Your task to perform on an android device: toggle wifi Image 0: 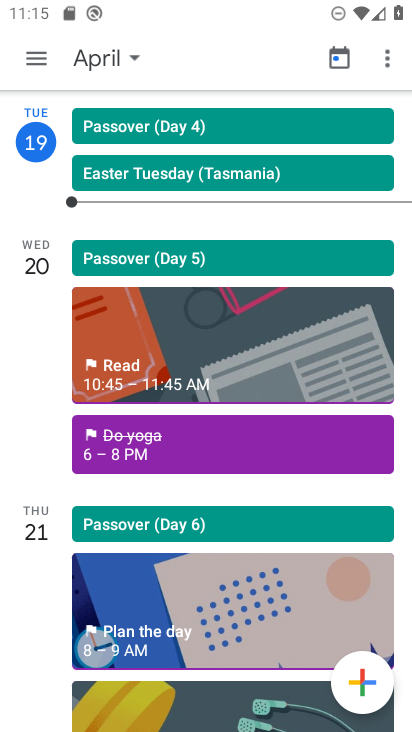
Step 0: press home button
Your task to perform on an android device: toggle wifi Image 1: 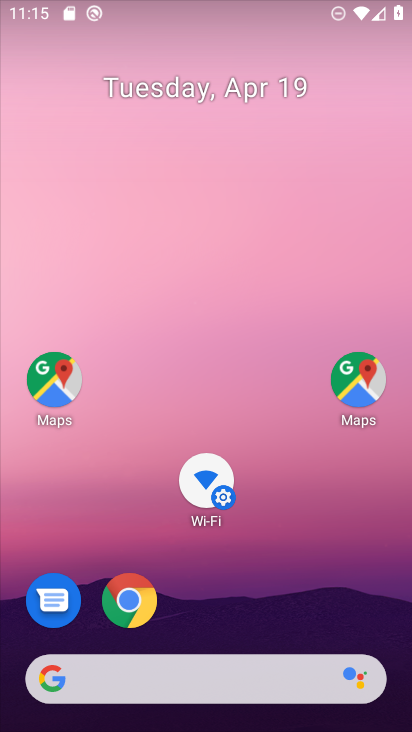
Step 1: drag from (267, 611) to (316, 32)
Your task to perform on an android device: toggle wifi Image 2: 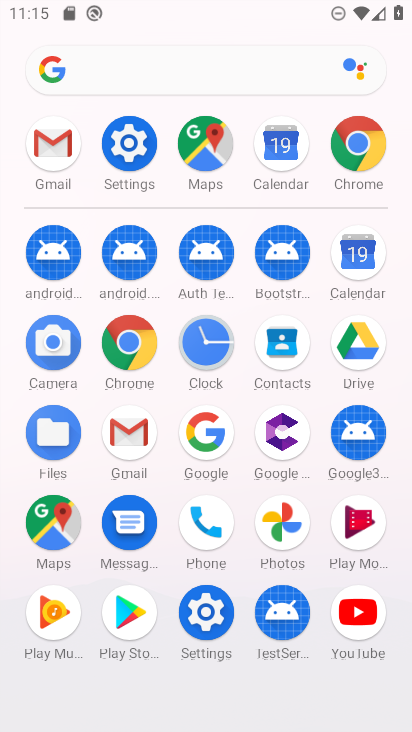
Step 2: click (215, 634)
Your task to perform on an android device: toggle wifi Image 3: 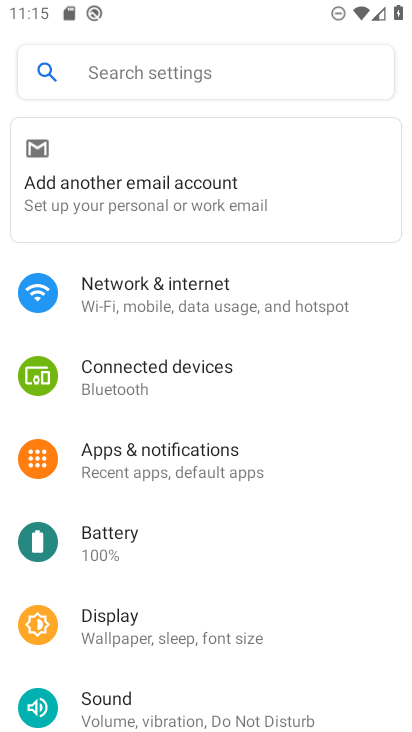
Step 3: click (205, 309)
Your task to perform on an android device: toggle wifi Image 4: 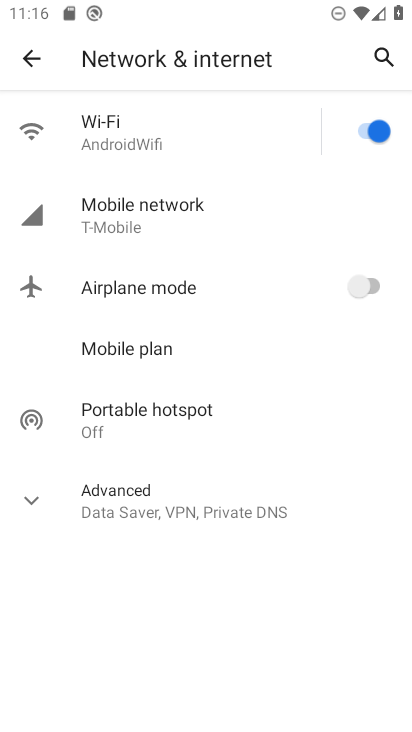
Step 4: click (364, 130)
Your task to perform on an android device: toggle wifi Image 5: 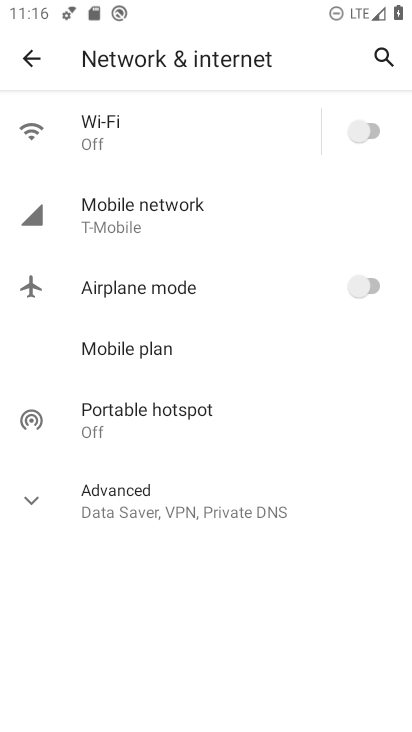
Step 5: task complete